Your task to perform on an android device: toggle pop-ups in chrome Image 0: 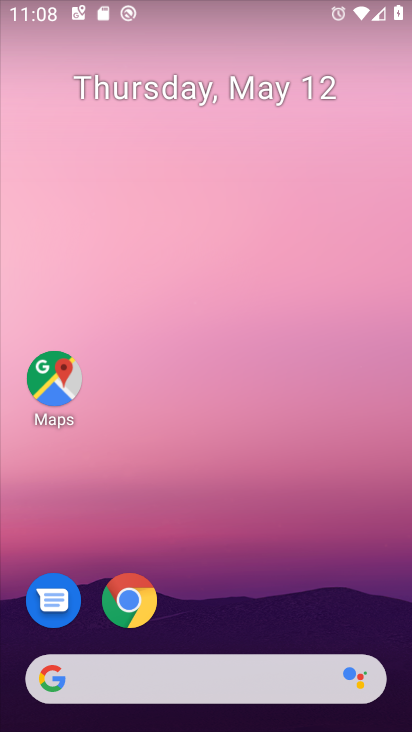
Step 0: click (139, 608)
Your task to perform on an android device: toggle pop-ups in chrome Image 1: 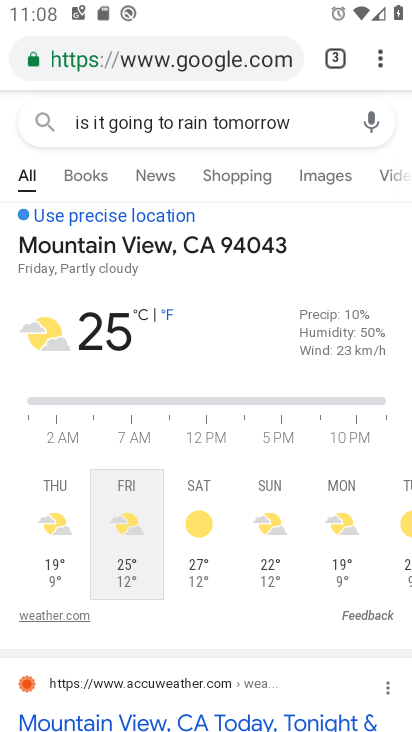
Step 1: click (376, 64)
Your task to perform on an android device: toggle pop-ups in chrome Image 2: 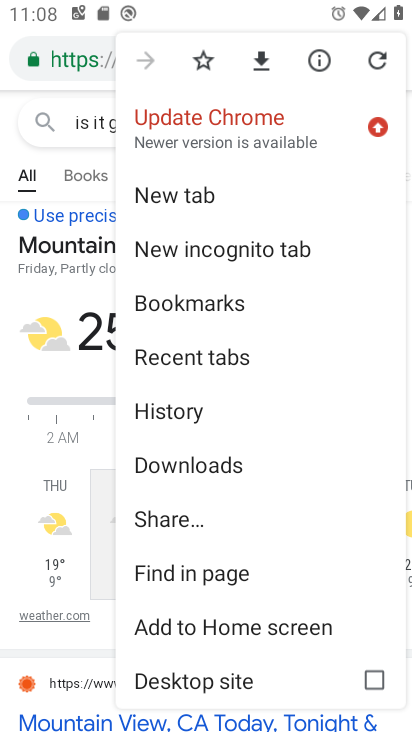
Step 2: drag from (267, 617) to (269, 403)
Your task to perform on an android device: toggle pop-ups in chrome Image 3: 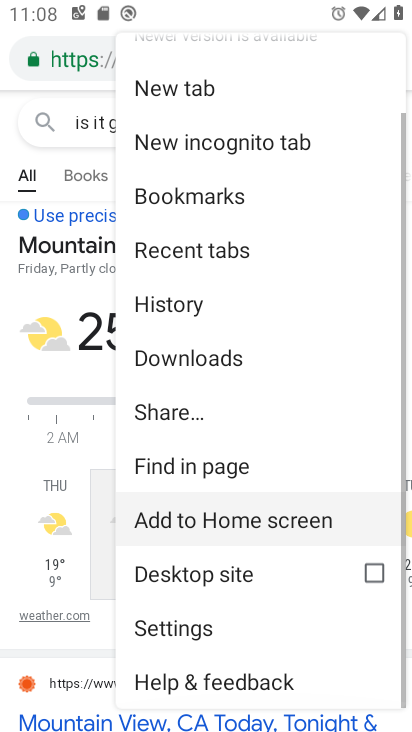
Step 3: click (258, 319)
Your task to perform on an android device: toggle pop-ups in chrome Image 4: 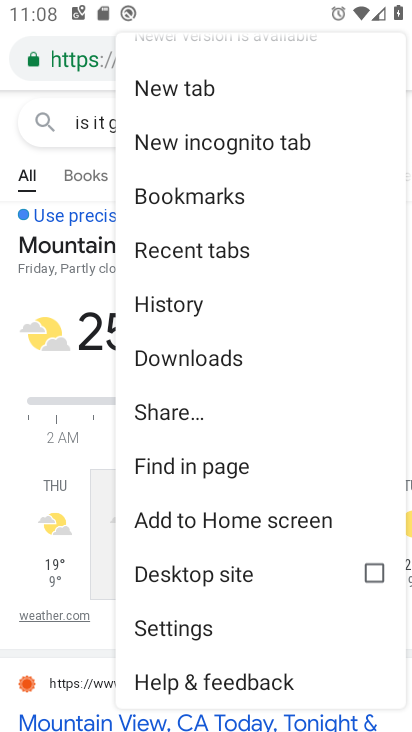
Step 4: click (200, 632)
Your task to perform on an android device: toggle pop-ups in chrome Image 5: 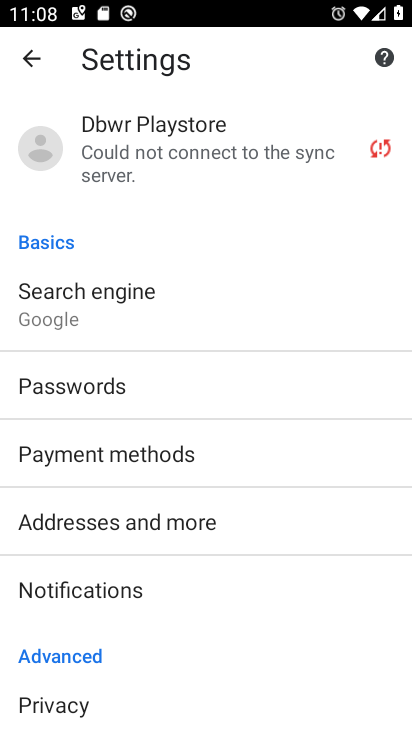
Step 5: drag from (138, 668) to (143, 537)
Your task to perform on an android device: toggle pop-ups in chrome Image 6: 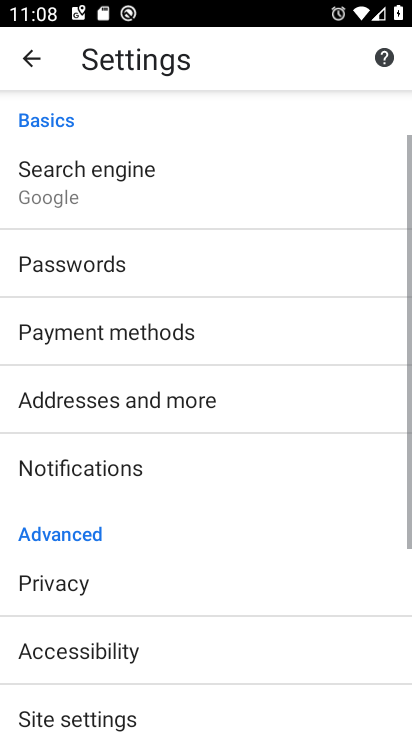
Step 6: drag from (159, 455) to (160, 250)
Your task to perform on an android device: toggle pop-ups in chrome Image 7: 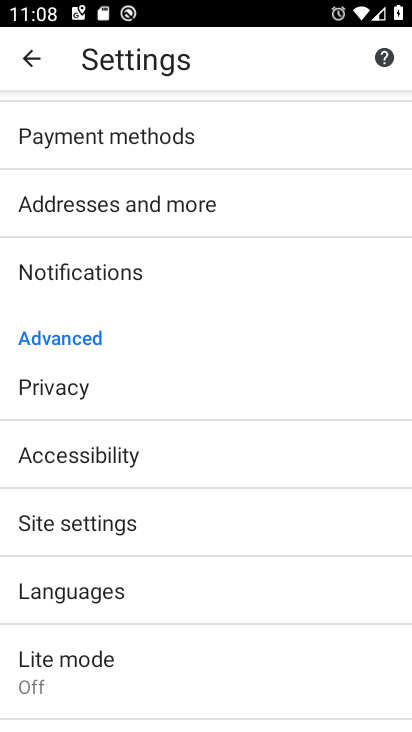
Step 7: click (79, 522)
Your task to perform on an android device: toggle pop-ups in chrome Image 8: 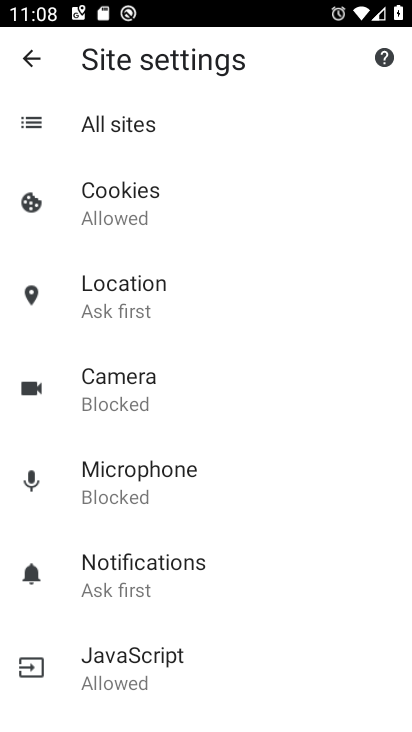
Step 8: drag from (147, 652) to (130, 369)
Your task to perform on an android device: toggle pop-ups in chrome Image 9: 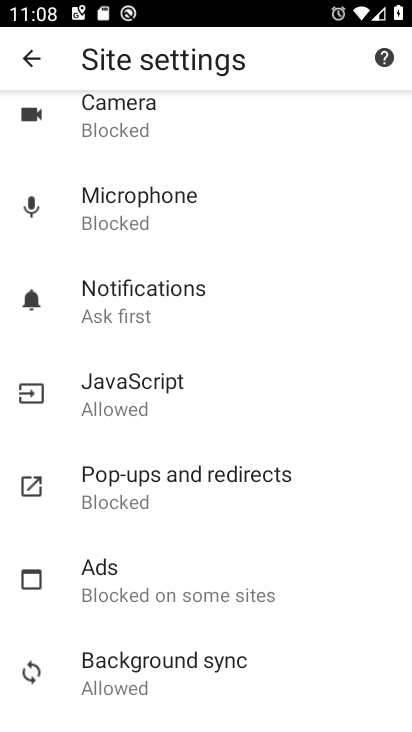
Step 9: click (144, 491)
Your task to perform on an android device: toggle pop-ups in chrome Image 10: 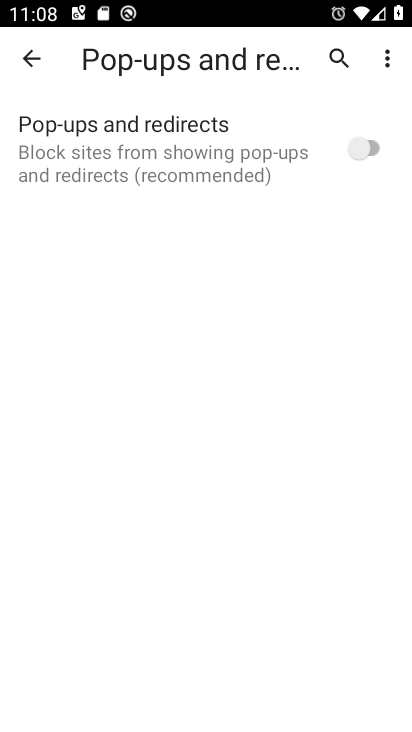
Step 10: click (355, 149)
Your task to perform on an android device: toggle pop-ups in chrome Image 11: 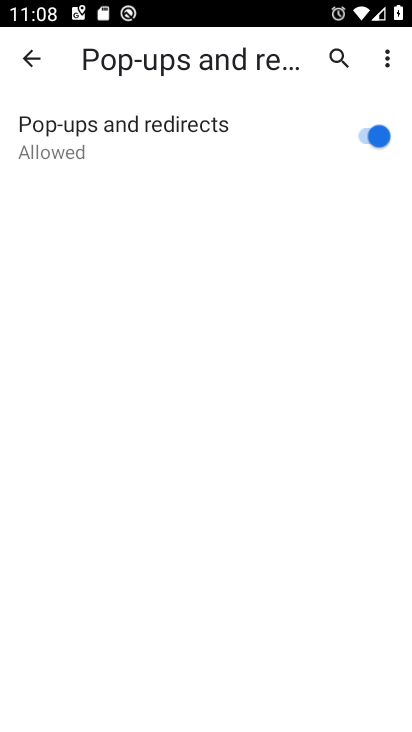
Step 11: task complete